Your task to perform on an android device: Search for a dining table on crateandbarrel.com Image 0: 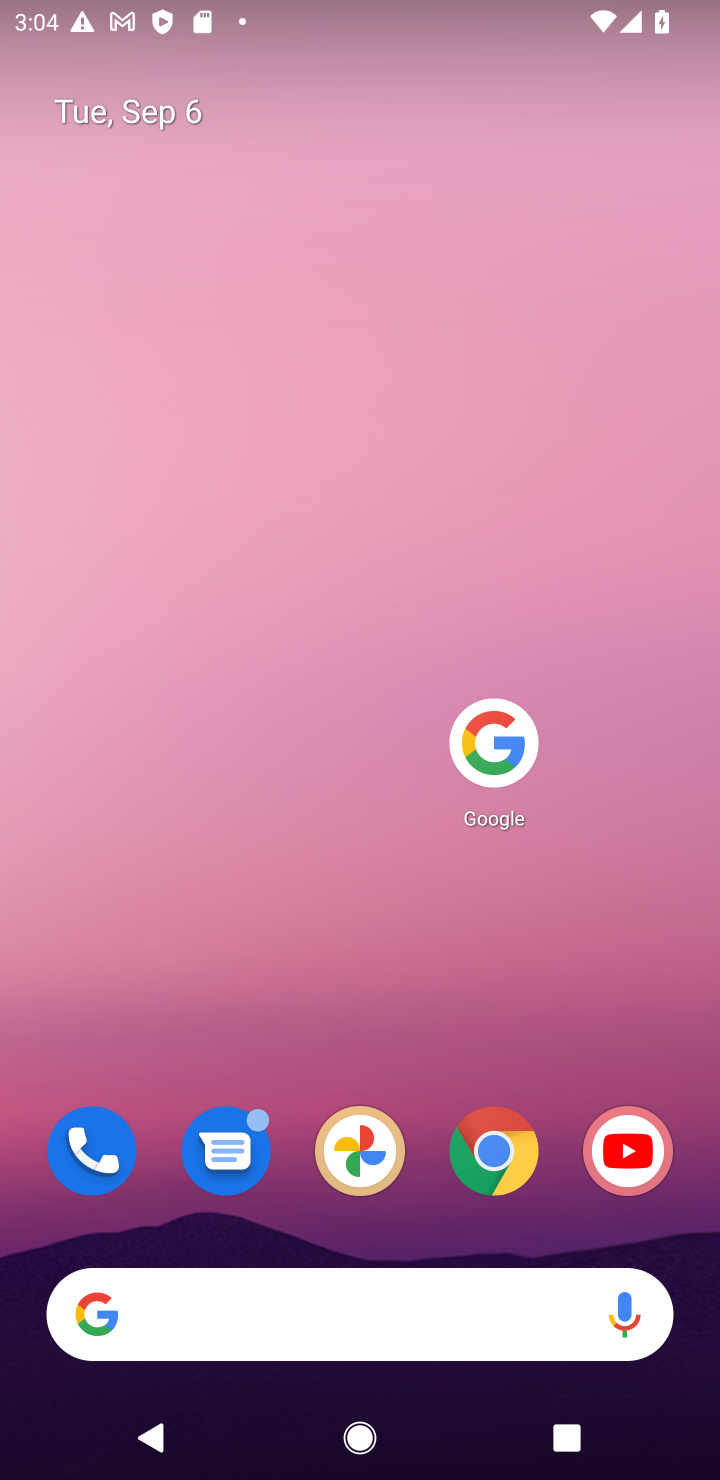
Step 0: click (468, 738)
Your task to perform on an android device: Search for a dining table on crateandbarrel.com Image 1: 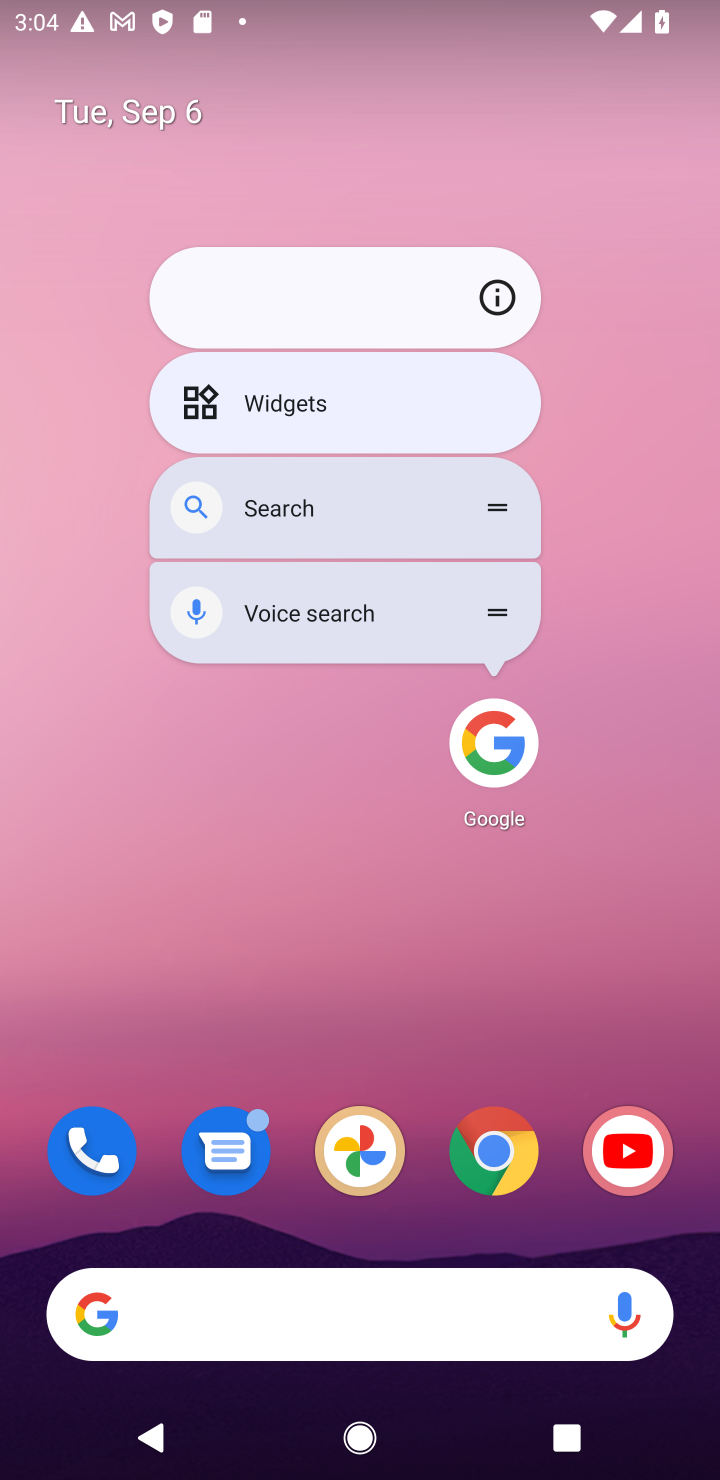
Step 1: click (492, 738)
Your task to perform on an android device: Search for a dining table on crateandbarrel.com Image 2: 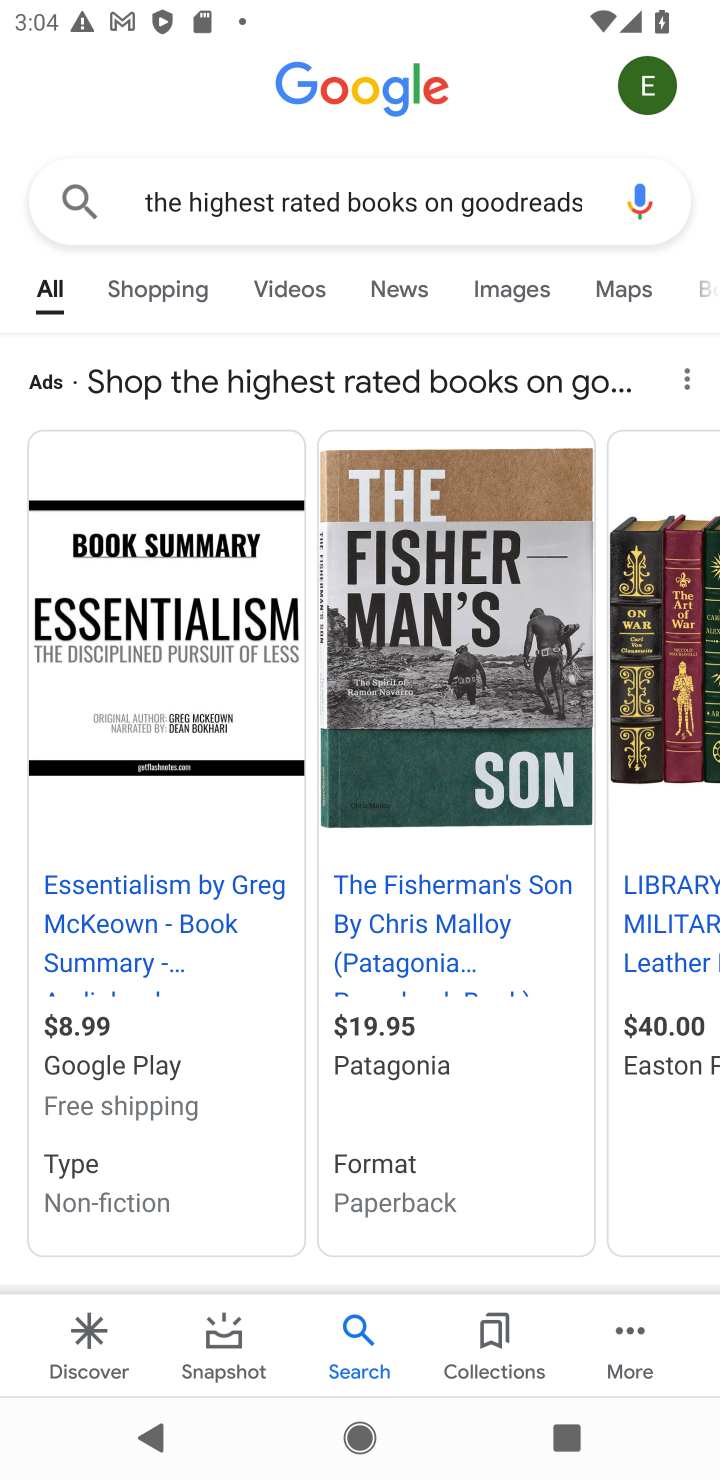
Step 2: click (422, 220)
Your task to perform on an android device: Search for a dining table on crateandbarrel.com Image 3: 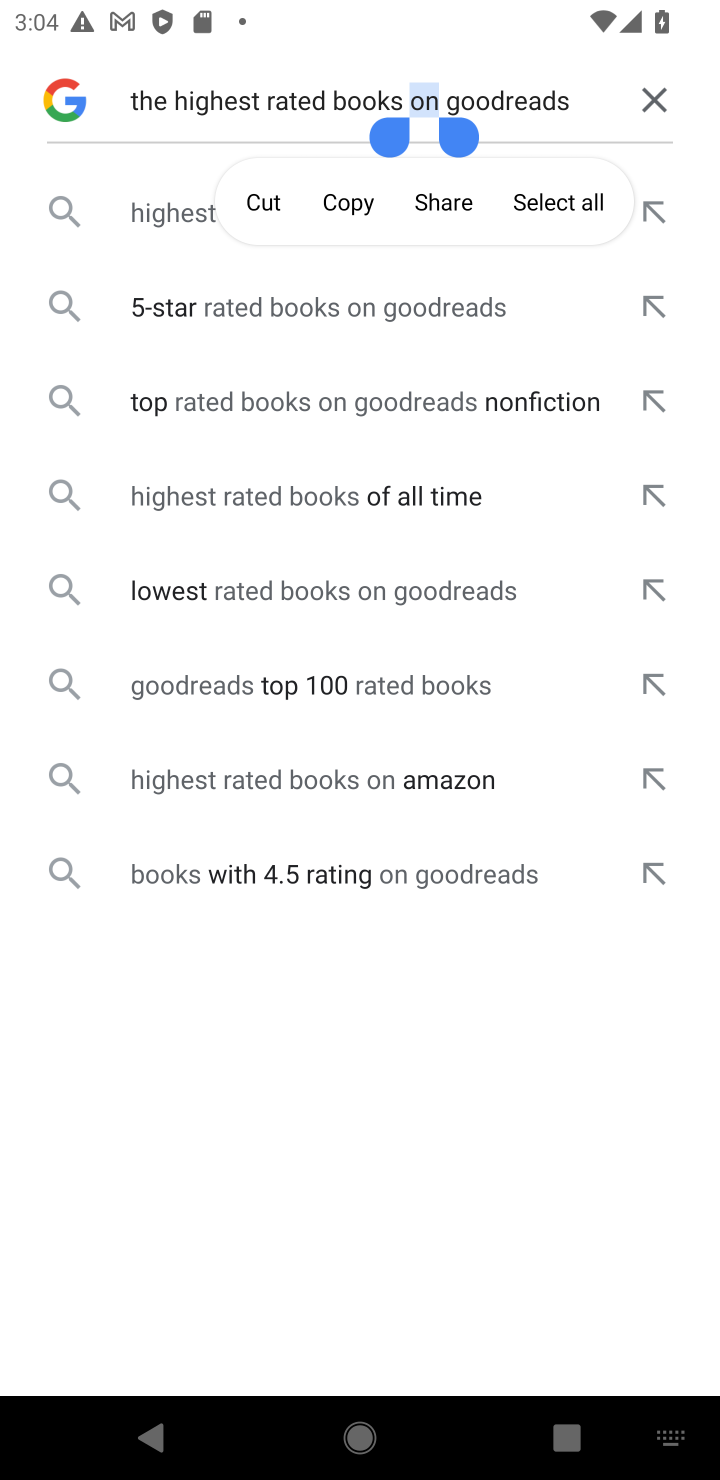
Step 3: click (662, 96)
Your task to perform on an android device: Search for a dining table on crateandbarrel.com Image 4: 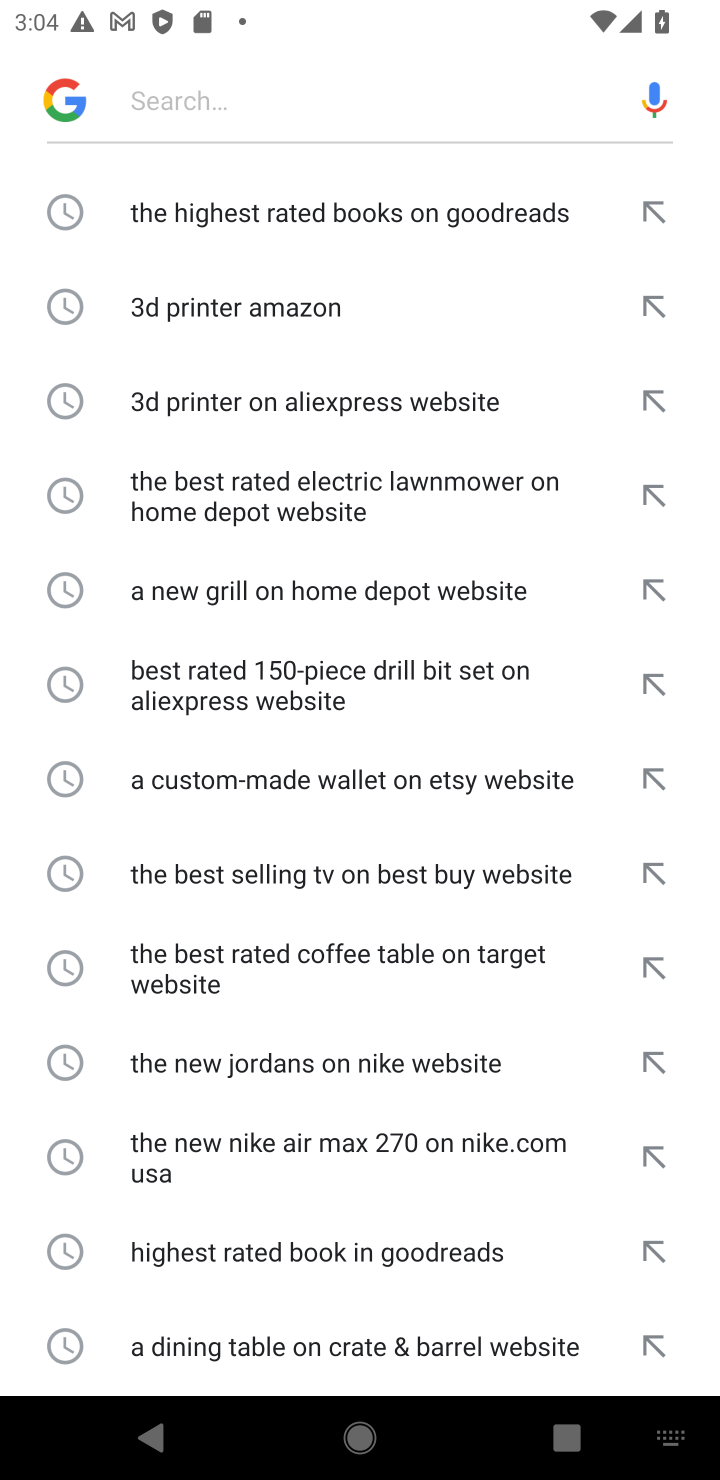
Step 4: click (647, 113)
Your task to perform on an android device: Search for a dining table on crateandbarrel.com Image 5: 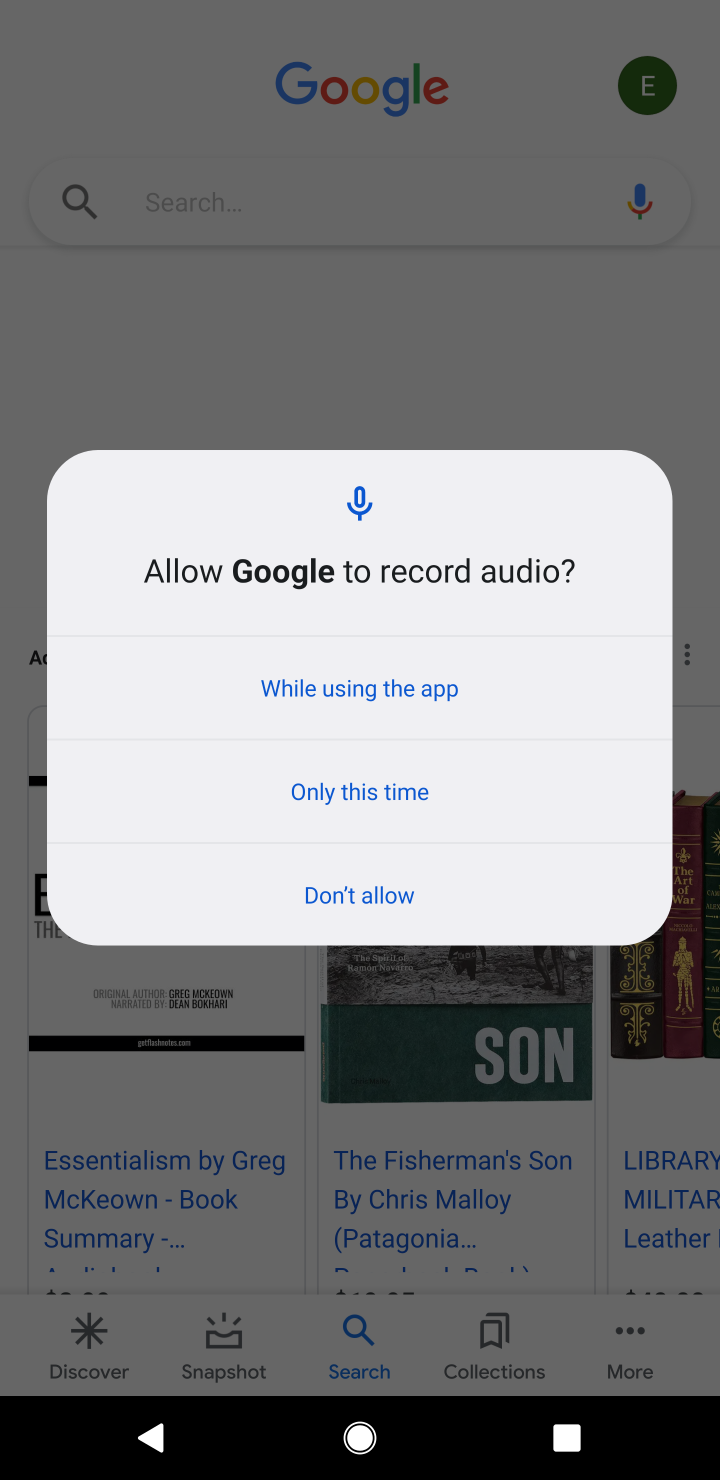
Step 5: press back button
Your task to perform on an android device: Search for a dining table on crateandbarrel.com Image 6: 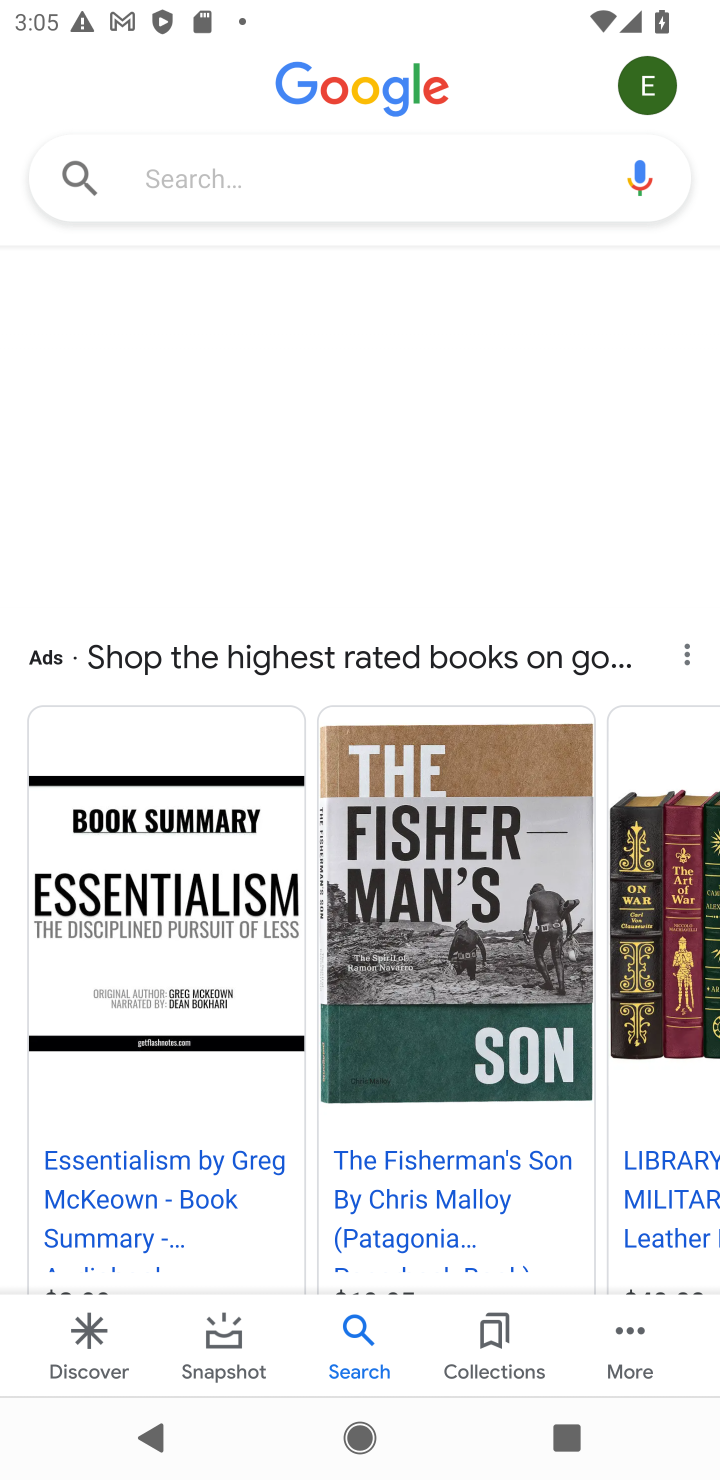
Step 6: click (375, 175)
Your task to perform on an android device: Search for a dining table on crateandbarrel.com Image 7: 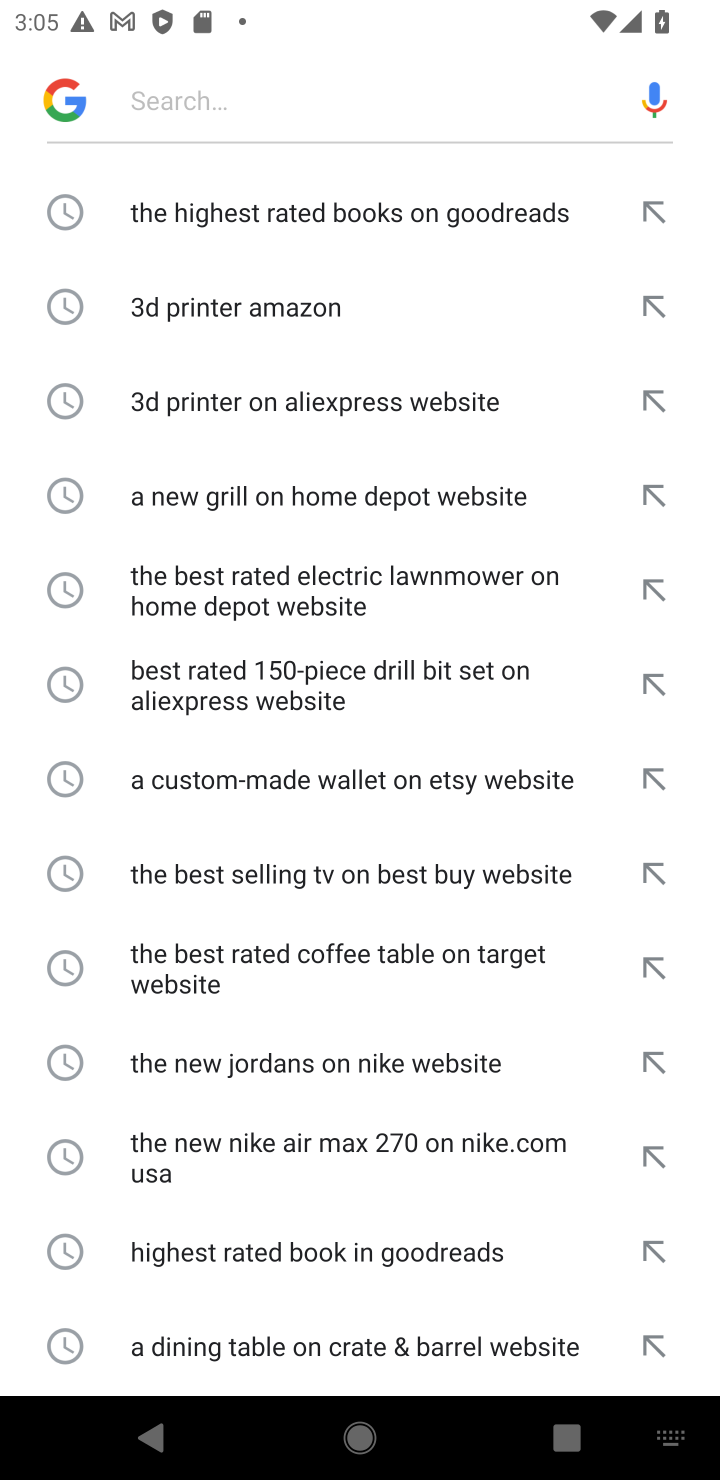
Step 7: type " dining table on crateandbarrel.com "
Your task to perform on an android device: Search for a dining table on crateandbarrel.com Image 8: 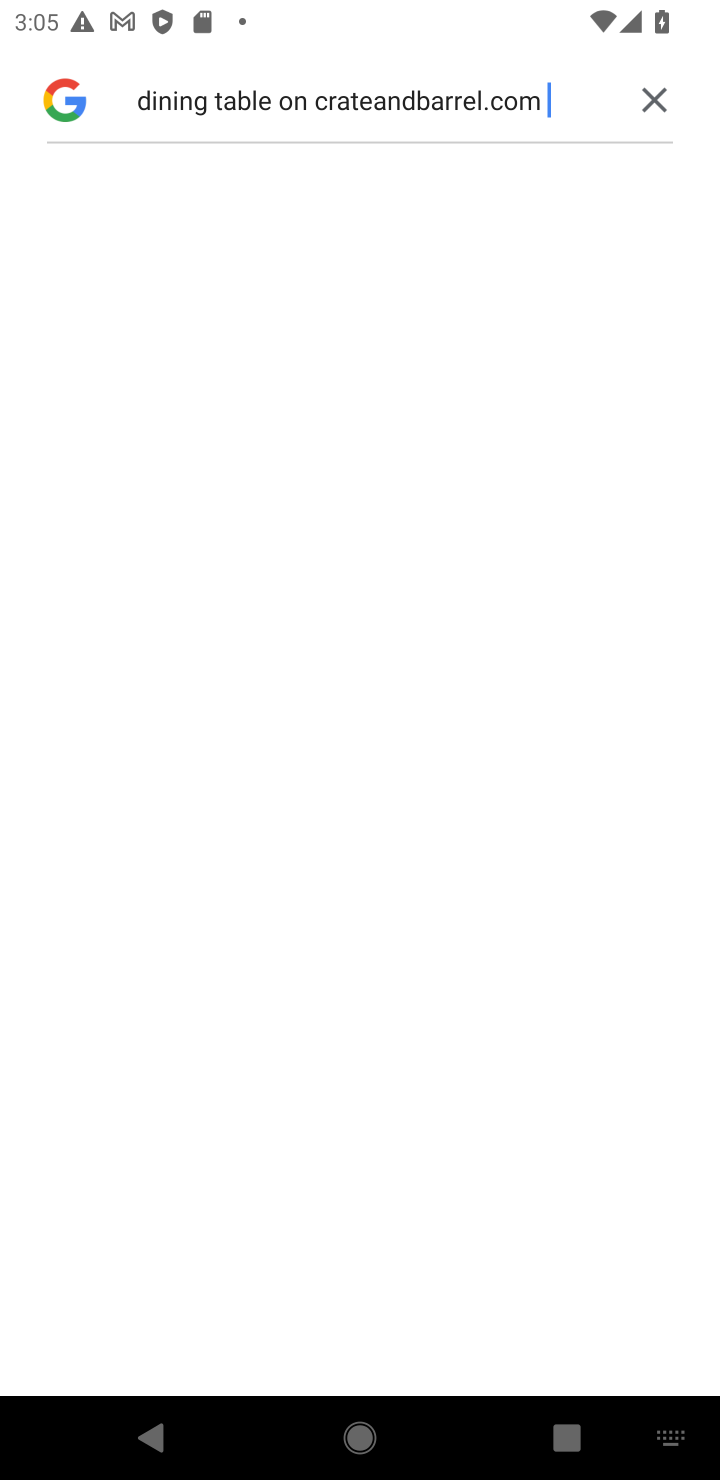
Step 8: click (491, 90)
Your task to perform on an android device: Search for a dining table on crateandbarrel.com Image 9: 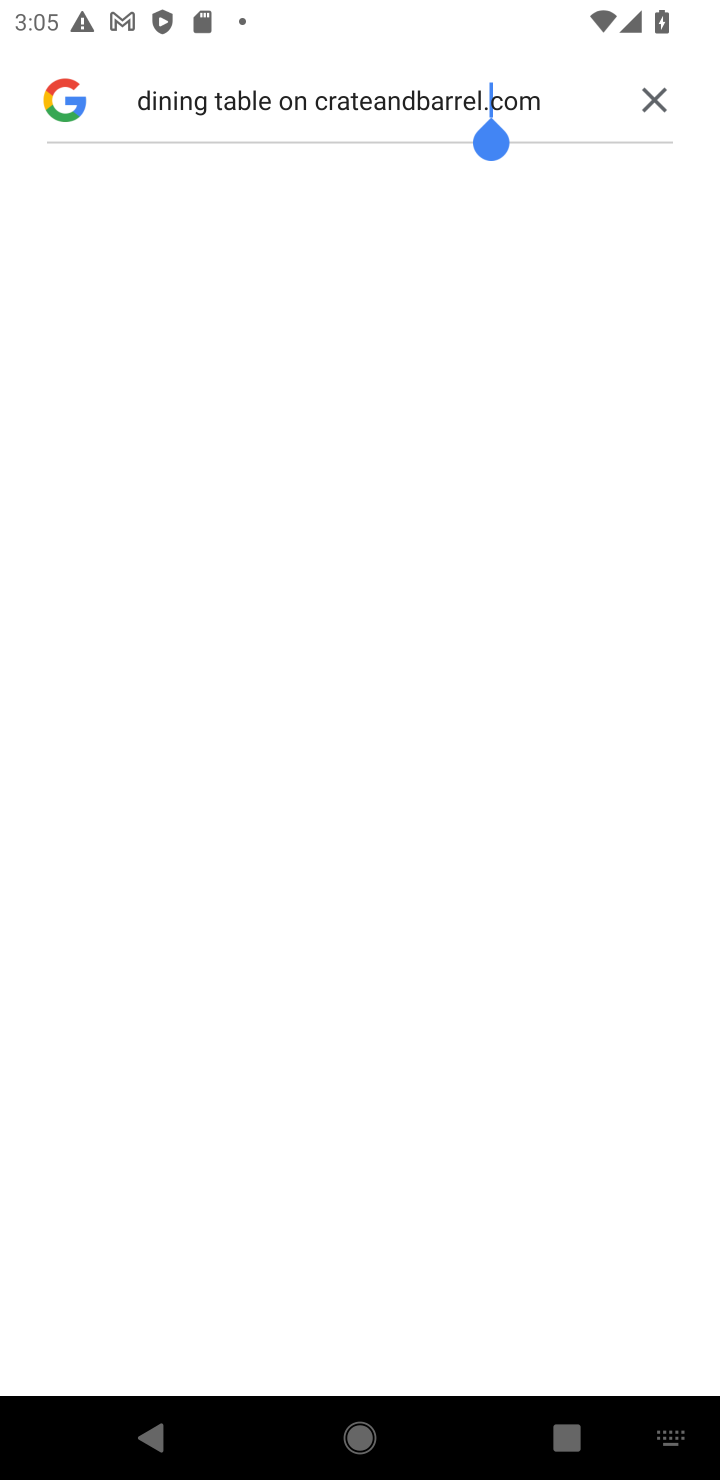
Step 9: click (579, 123)
Your task to perform on an android device: Search for a dining table on crateandbarrel.com Image 10: 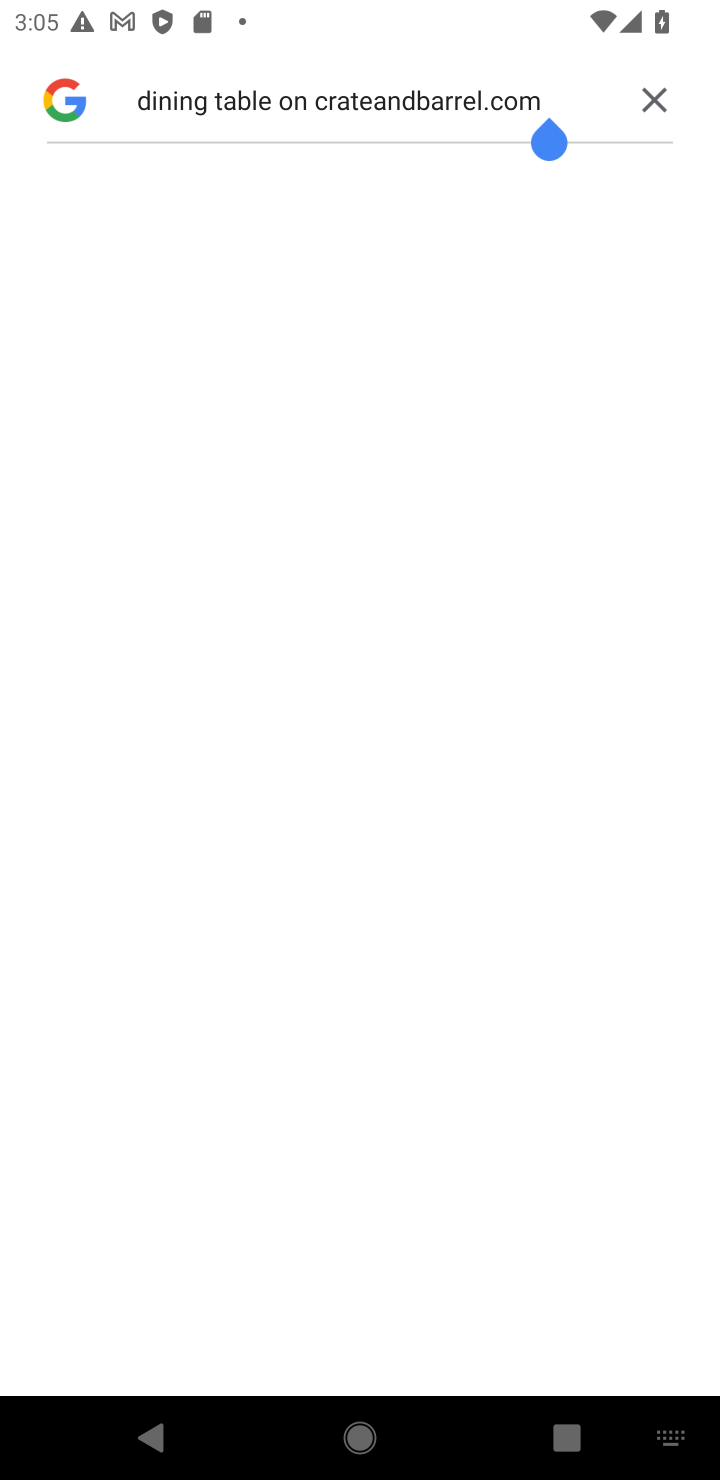
Step 10: click (579, 123)
Your task to perform on an android device: Search for a dining table on crateandbarrel.com Image 11: 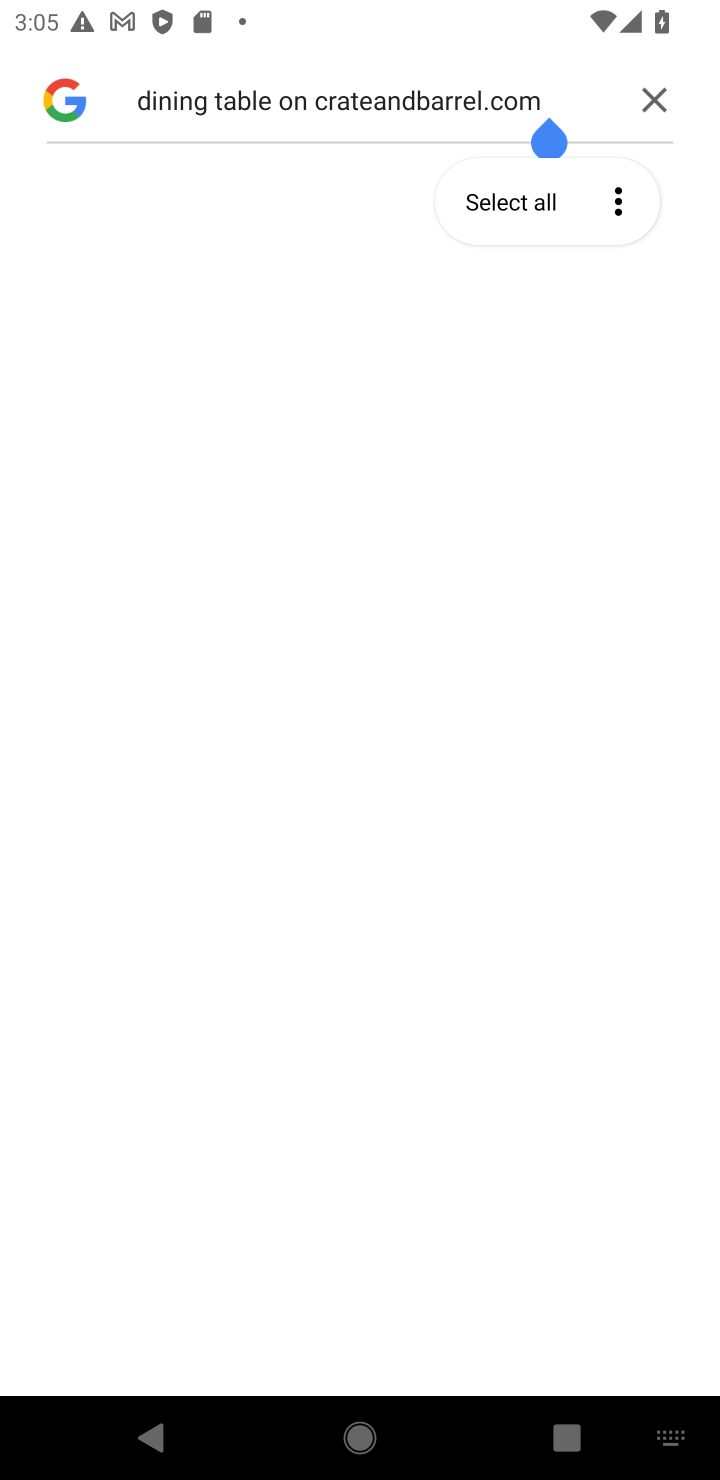
Step 11: click (655, 100)
Your task to perform on an android device: Search for a dining table on crateandbarrel.com Image 12: 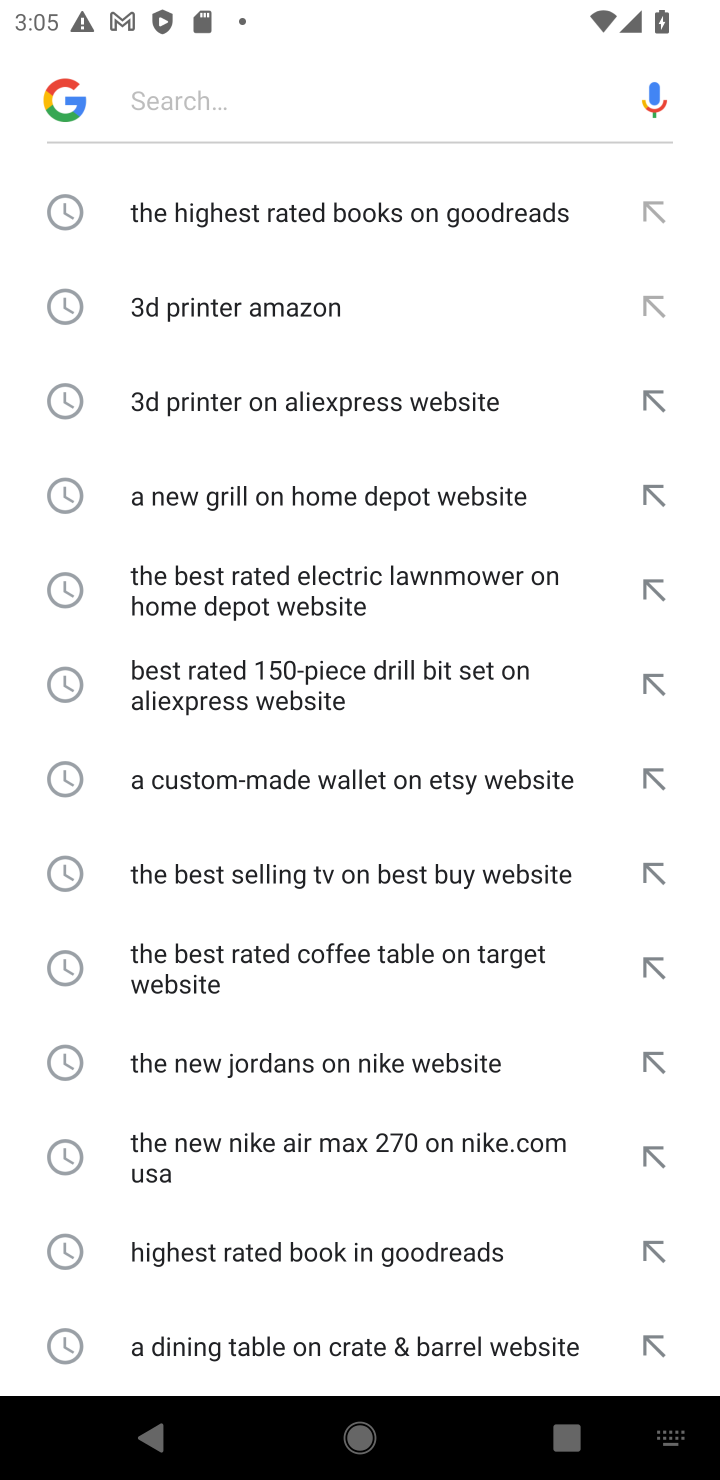
Step 12: click (243, 89)
Your task to perform on an android device: Search for a dining table on crateandbarrel.com Image 13: 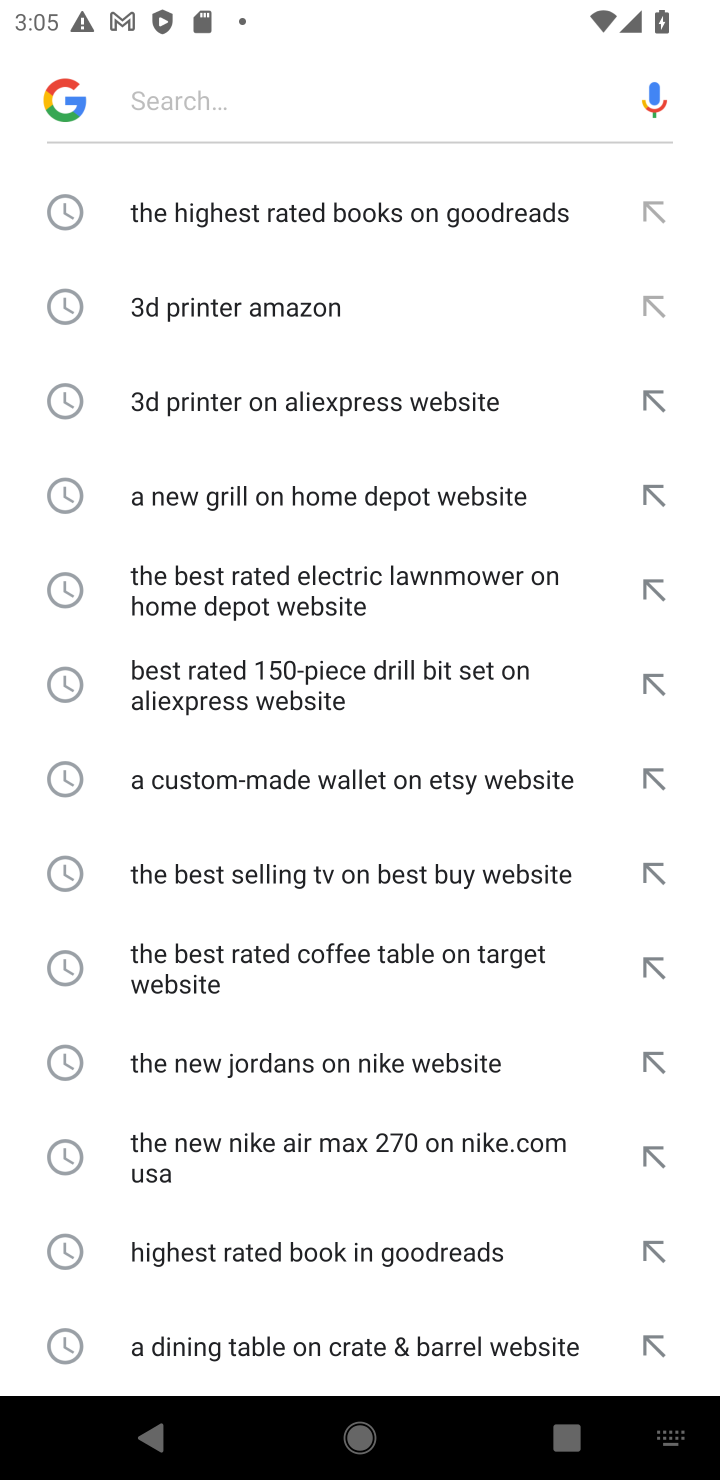
Step 13: type " dining table on crateandbarrel.com "
Your task to perform on an android device: Search for a dining table on crateandbarrel.com Image 14: 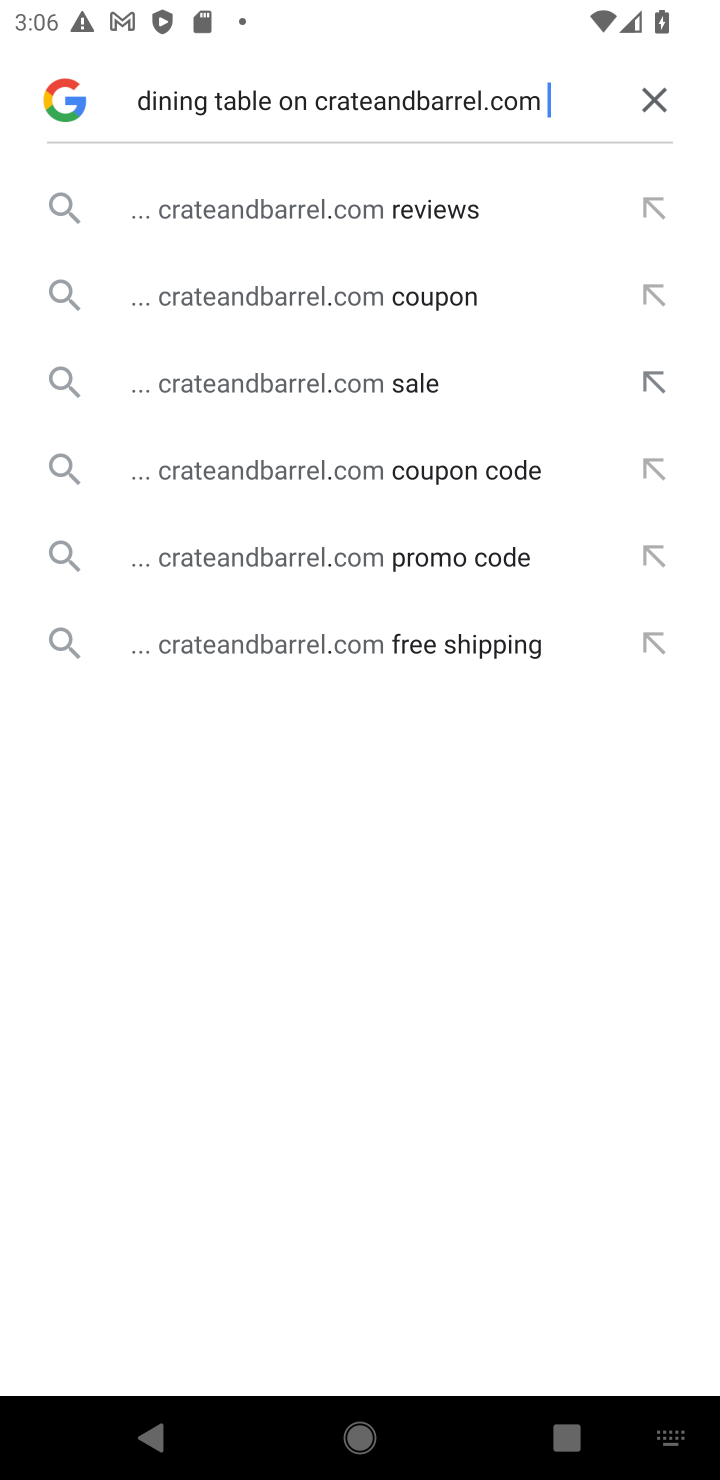
Step 14: click (367, 392)
Your task to perform on an android device: Search for a dining table on crateandbarrel.com Image 15: 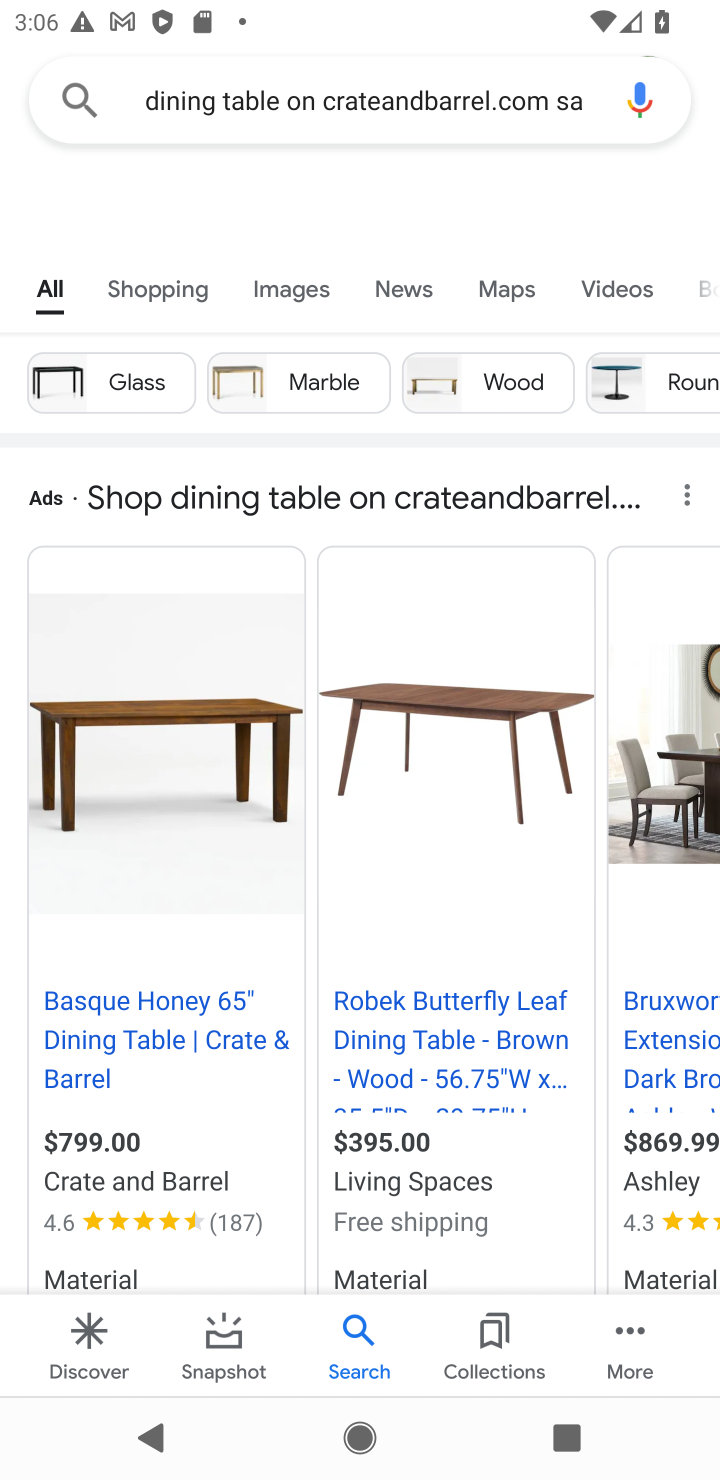
Step 15: task complete